Your task to perform on an android device: toggle notifications settings in the gmail app Image 0: 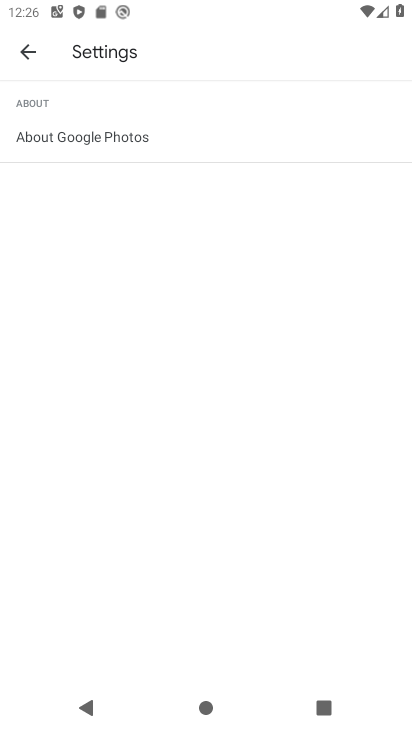
Step 0: drag from (381, 538) to (390, 438)
Your task to perform on an android device: toggle notifications settings in the gmail app Image 1: 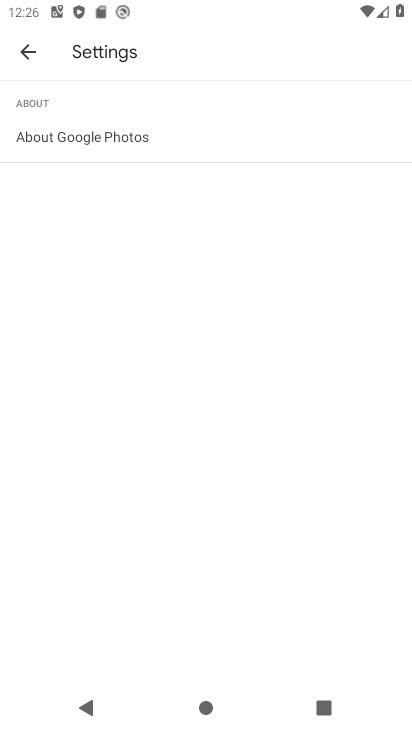
Step 1: press home button
Your task to perform on an android device: toggle notifications settings in the gmail app Image 2: 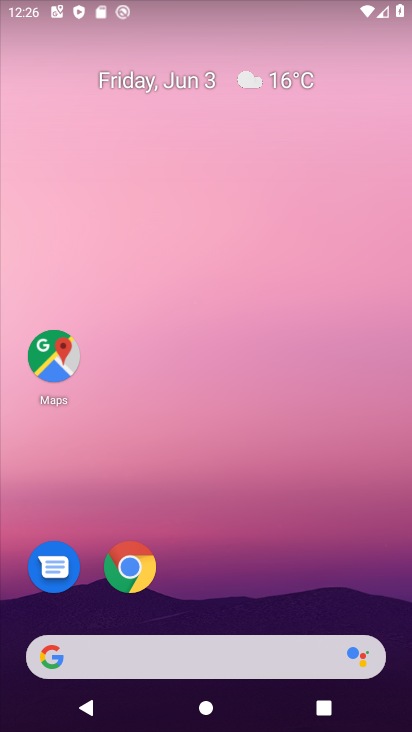
Step 2: drag from (351, 439) to (399, 257)
Your task to perform on an android device: toggle notifications settings in the gmail app Image 3: 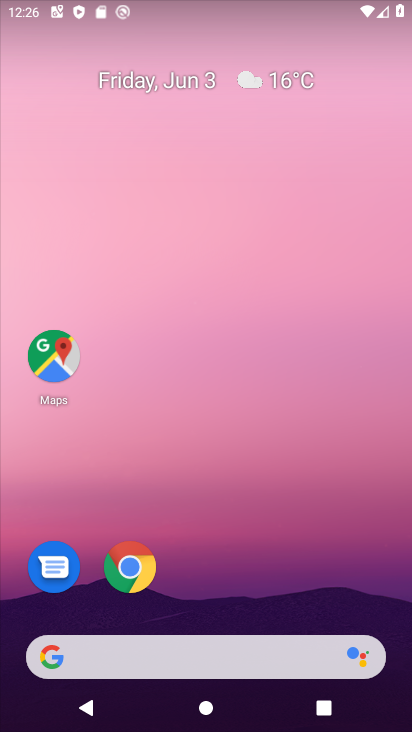
Step 3: drag from (286, 617) to (328, 206)
Your task to perform on an android device: toggle notifications settings in the gmail app Image 4: 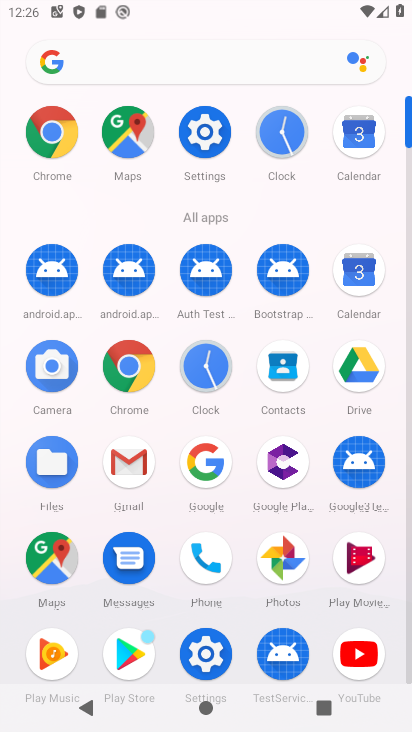
Step 4: click (128, 474)
Your task to perform on an android device: toggle notifications settings in the gmail app Image 5: 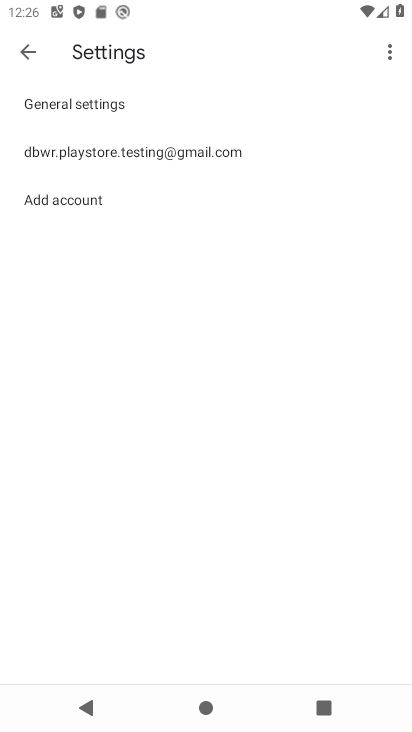
Step 5: click (70, 150)
Your task to perform on an android device: toggle notifications settings in the gmail app Image 6: 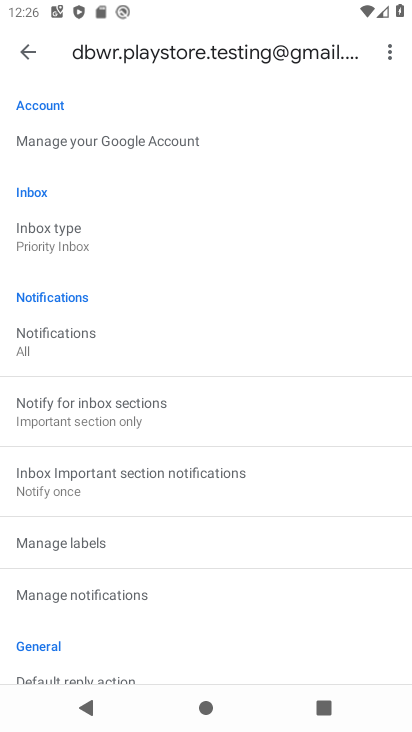
Step 6: click (108, 173)
Your task to perform on an android device: toggle notifications settings in the gmail app Image 7: 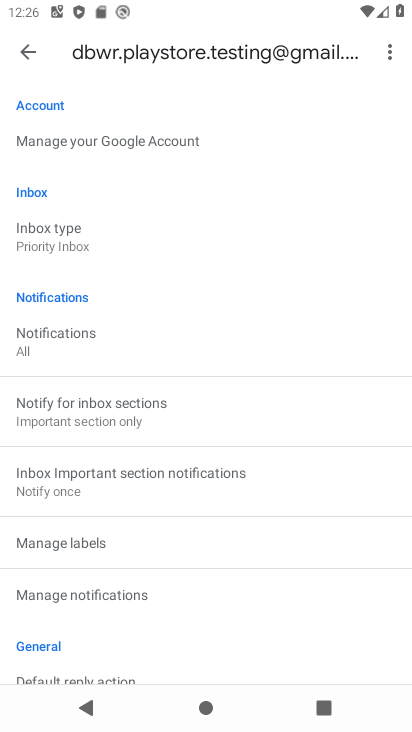
Step 7: click (120, 589)
Your task to perform on an android device: toggle notifications settings in the gmail app Image 8: 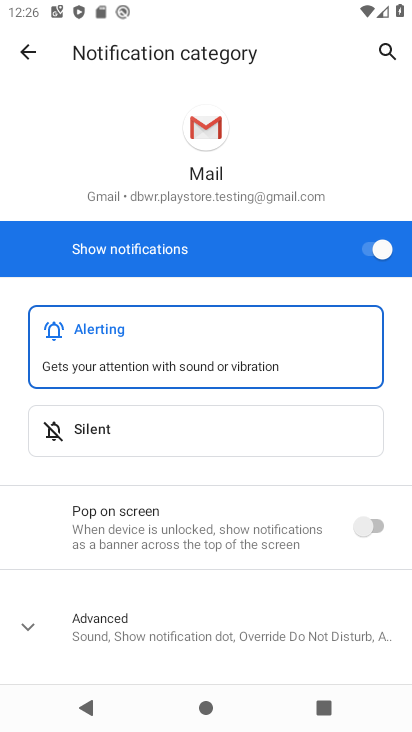
Step 8: click (383, 260)
Your task to perform on an android device: toggle notifications settings in the gmail app Image 9: 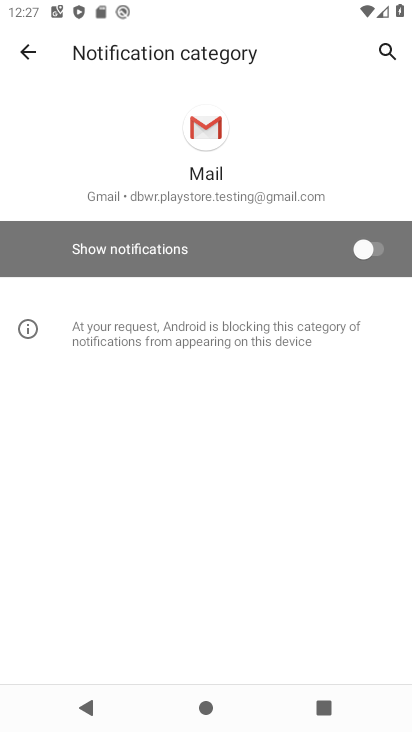
Step 9: task complete